Your task to perform on an android device: Open eBay Image 0: 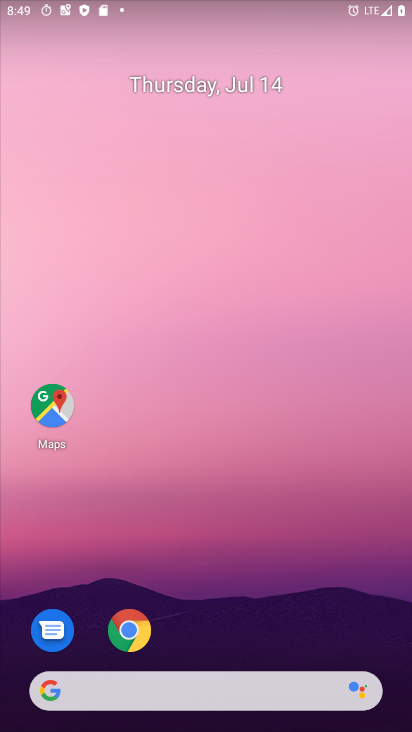
Step 0: drag from (245, 725) to (228, 248)
Your task to perform on an android device: Open eBay Image 1: 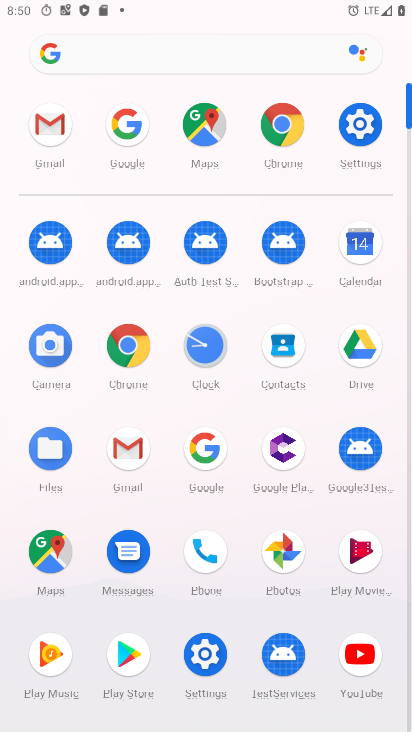
Step 1: click (128, 344)
Your task to perform on an android device: Open eBay Image 2: 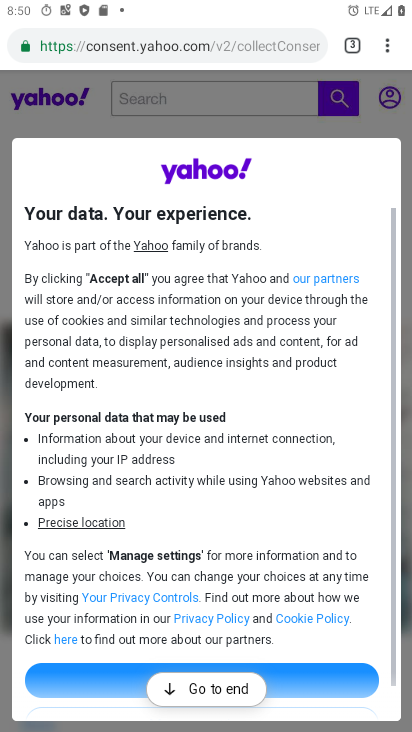
Step 2: click (387, 48)
Your task to perform on an android device: Open eBay Image 3: 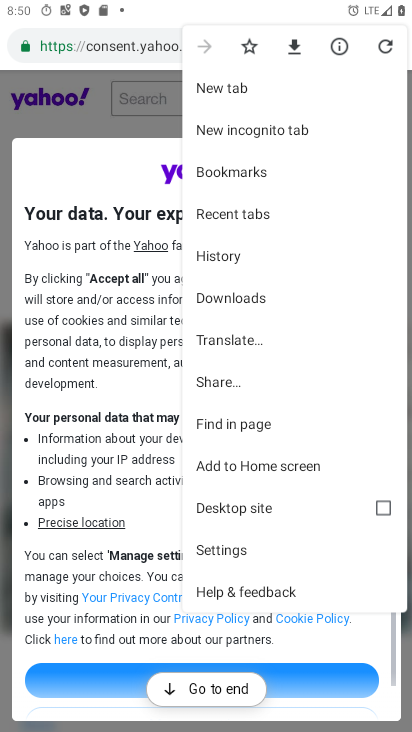
Step 3: click (227, 87)
Your task to perform on an android device: Open eBay Image 4: 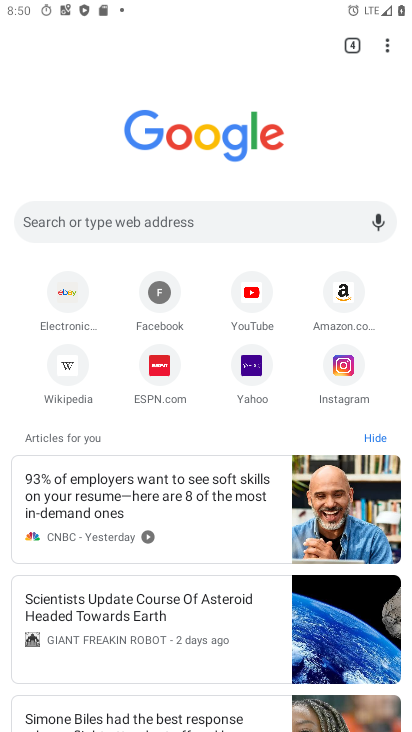
Step 4: click (224, 226)
Your task to perform on an android device: Open eBay Image 5: 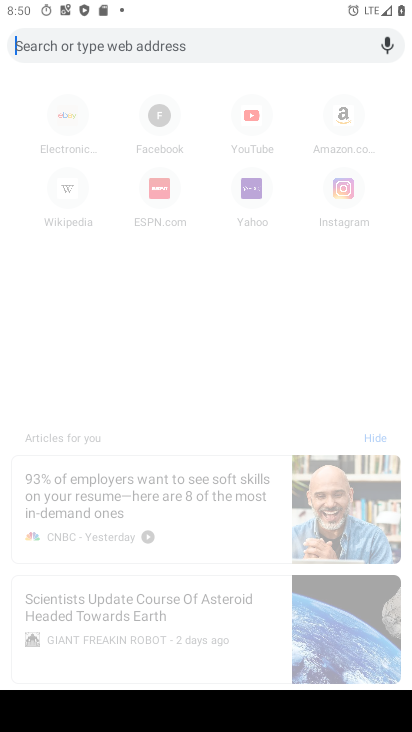
Step 5: type "eBay"
Your task to perform on an android device: Open eBay Image 6: 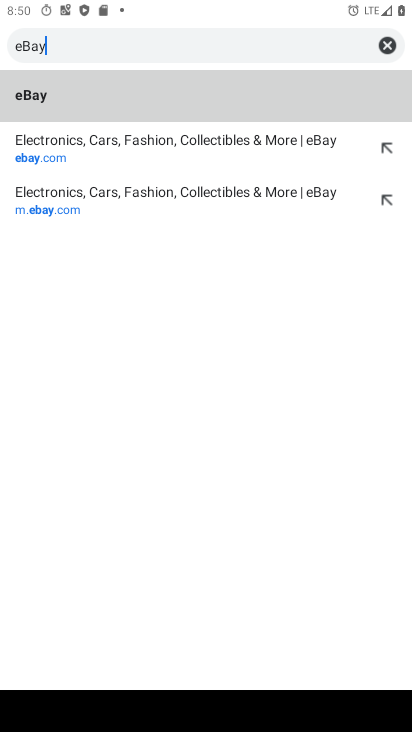
Step 6: type ""
Your task to perform on an android device: Open eBay Image 7: 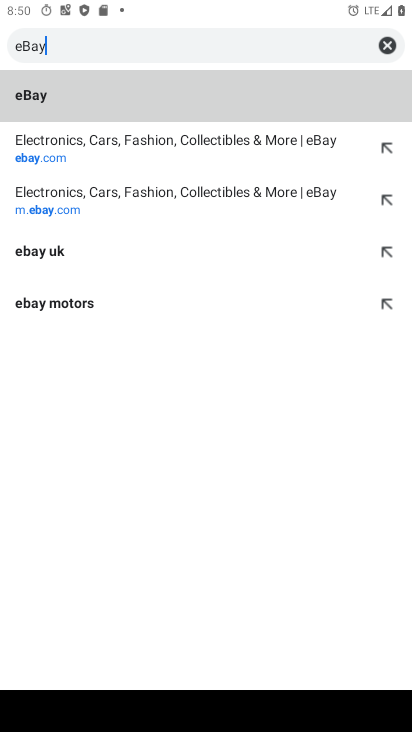
Step 7: click (26, 88)
Your task to perform on an android device: Open eBay Image 8: 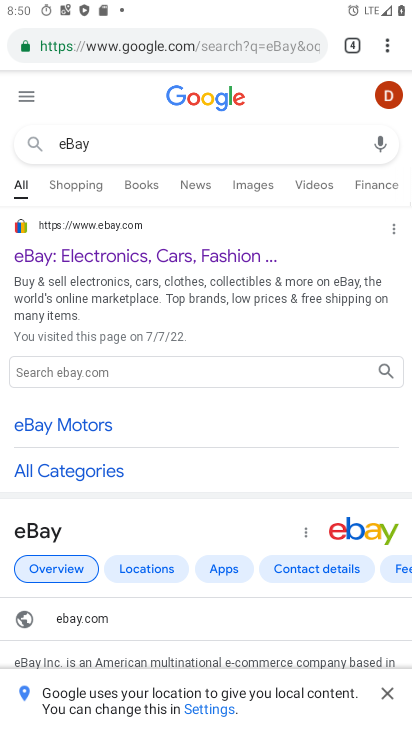
Step 8: click (176, 256)
Your task to perform on an android device: Open eBay Image 9: 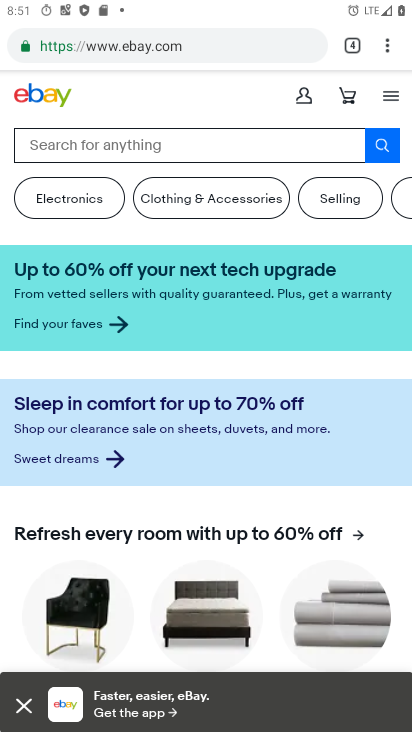
Step 9: task complete